Your task to perform on an android device: Open calendar and show me the fourth week of next month Image 0: 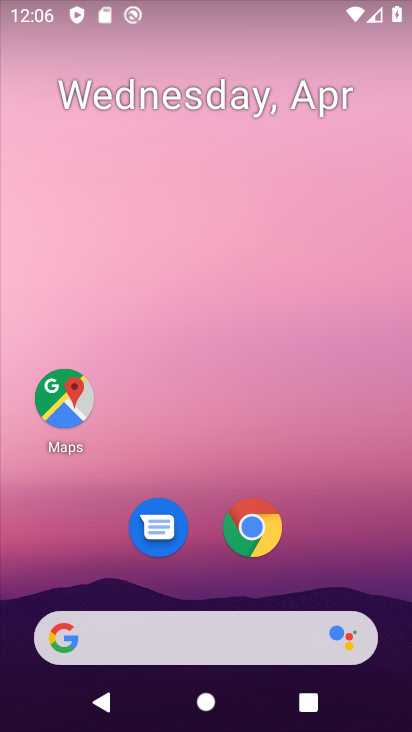
Step 0: drag from (351, 574) to (294, 25)
Your task to perform on an android device: Open calendar and show me the fourth week of next month Image 1: 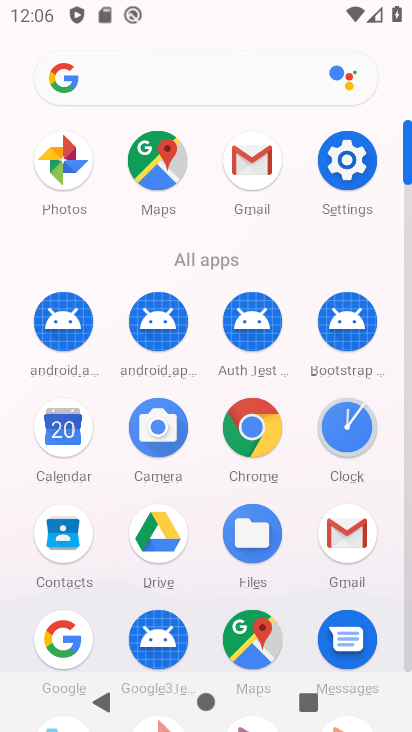
Step 1: click (57, 440)
Your task to perform on an android device: Open calendar and show me the fourth week of next month Image 2: 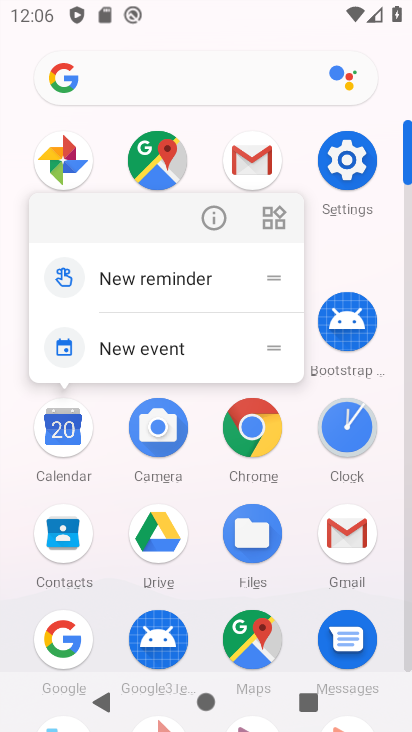
Step 2: click (66, 429)
Your task to perform on an android device: Open calendar and show me the fourth week of next month Image 3: 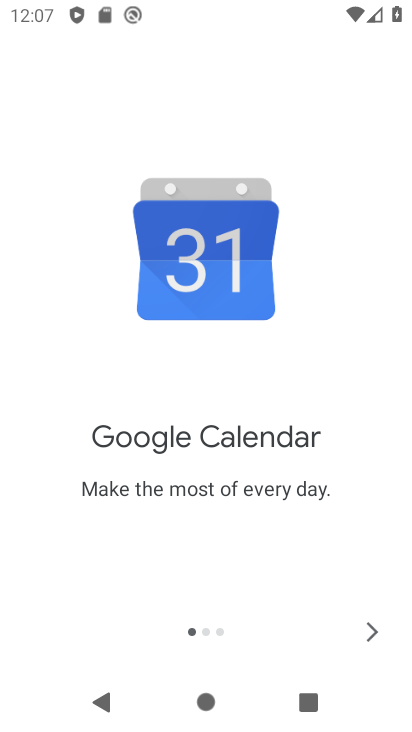
Step 3: click (366, 642)
Your task to perform on an android device: Open calendar and show me the fourth week of next month Image 4: 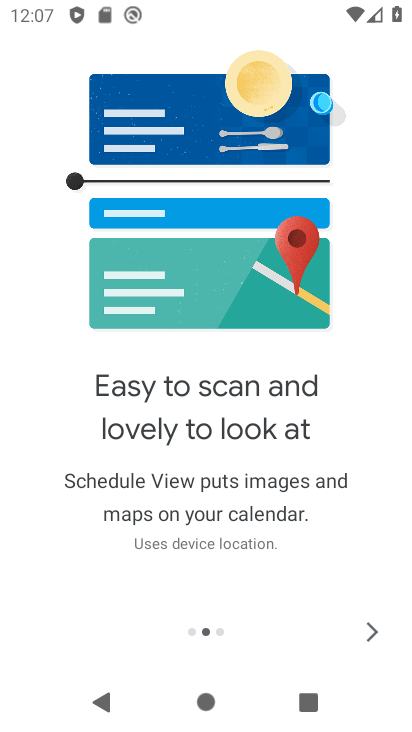
Step 4: click (366, 641)
Your task to perform on an android device: Open calendar and show me the fourth week of next month Image 5: 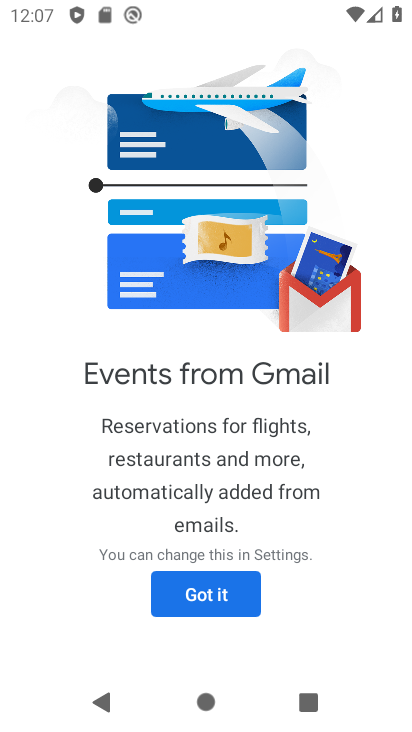
Step 5: click (212, 602)
Your task to perform on an android device: Open calendar and show me the fourth week of next month Image 6: 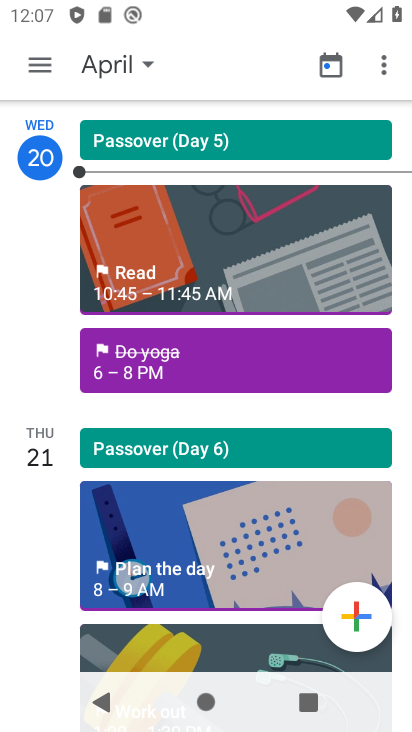
Step 6: click (140, 63)
Your task to perform on an android device: Open calendar and show me the fourth week of next month Image 7: 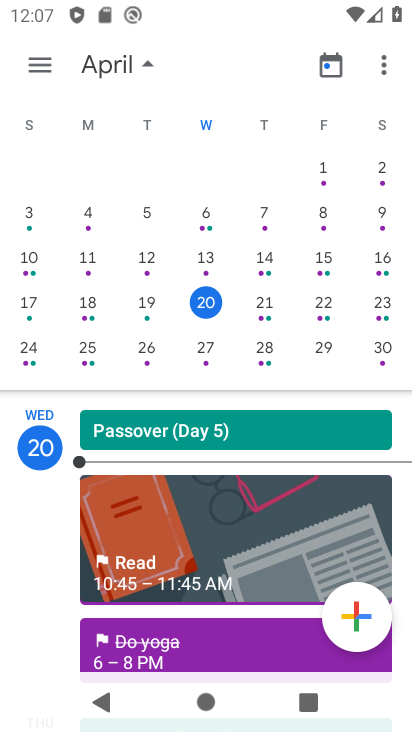
Step 7: drag from (174, 223) to (1, 91)
Your task to perform on an android device: Open calendar and show me the fourth week of next month Image 8: 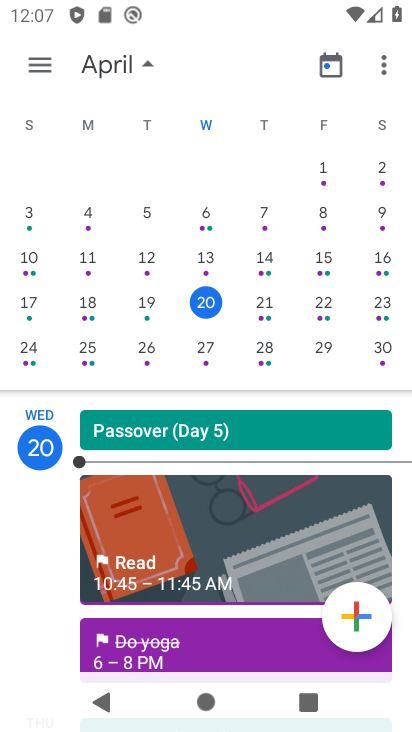
Step 8: drag from (317, 276) to (0, 72)
Your task to perform on an android device: Open calendar and show me the fourth week of next month Image 9: 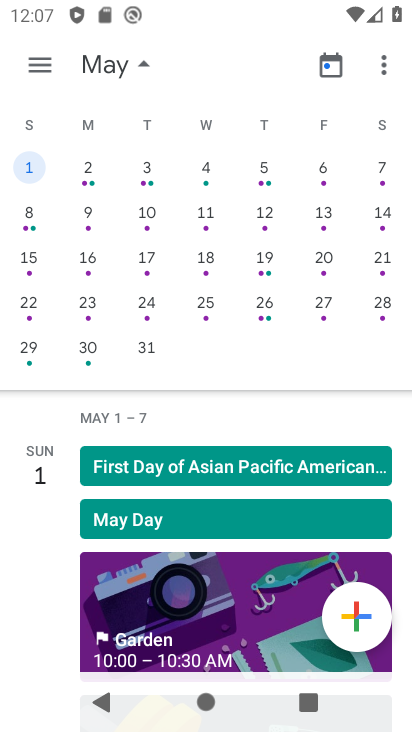
Step 9: click (37, 62)
Your task to perform on an android device: Open calendar and show me the fourth week of next month Image 10: 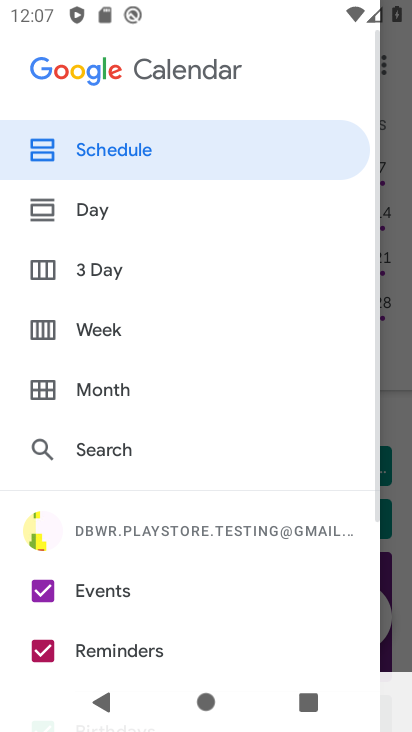
Step 10: click (90, 333)
Your task to perform on an android device: Open calendar and show me the fourth week of next month Image 11: 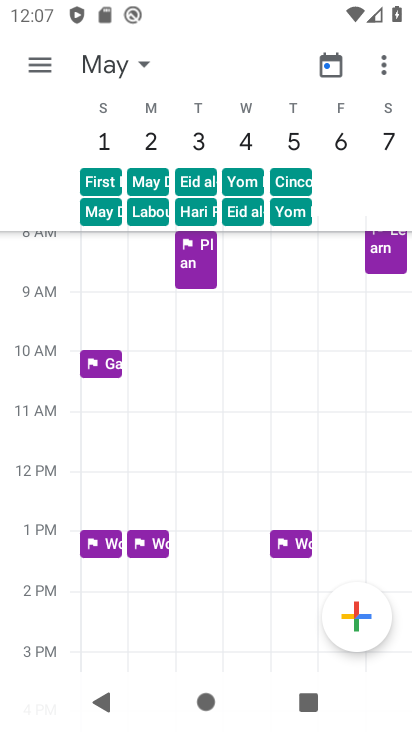
Step 11: task complete